Your task to perform on an android device: empty trash in the gmail app Image 0: 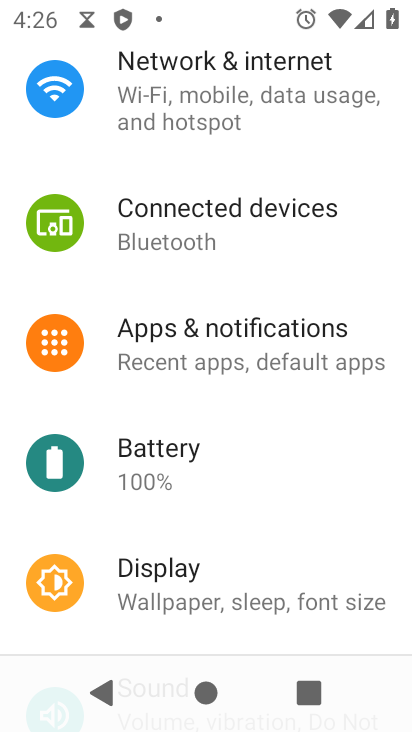
Step 0: press home button
Your task to perform on an android device: empty trash in the gmail app Image 1: 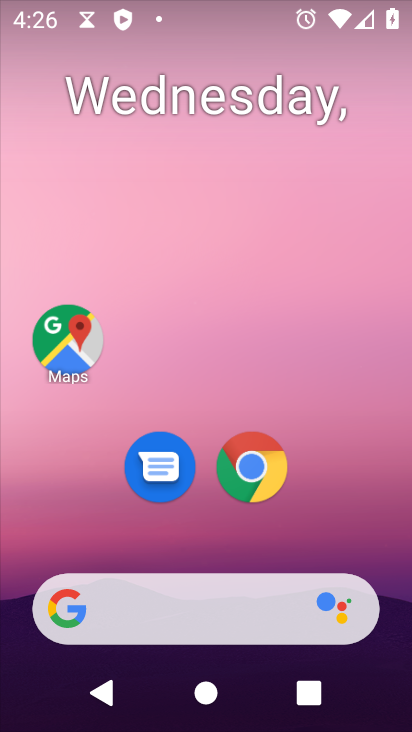
Step 1: drag from (379, 488) to (357, 71)
Your task to perform on an android device: empty trash in the gmail app Image 2: 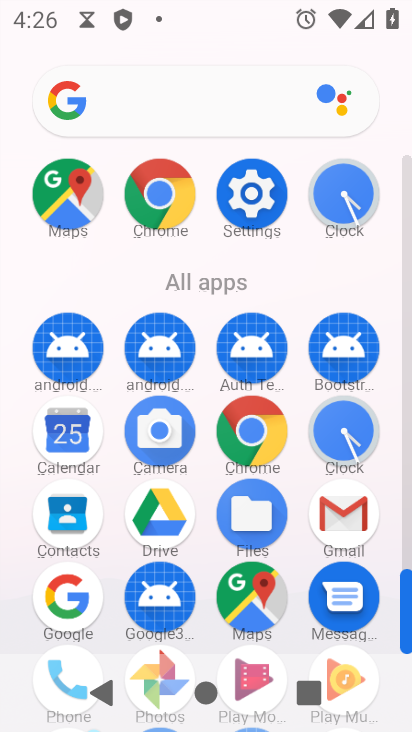
Step 2: click (359, 510)
Your task to perform on an android device: empty trash in the gmail app Image 3: 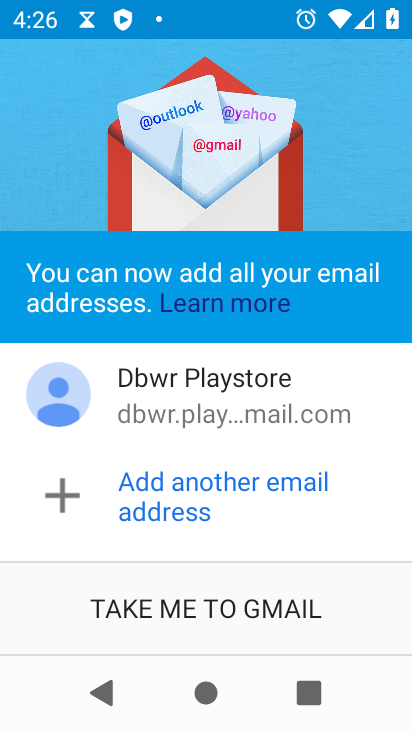
Step 3: click (232, 619)
Your task to perform on an android device: empty trash in the gmail app Image 4: 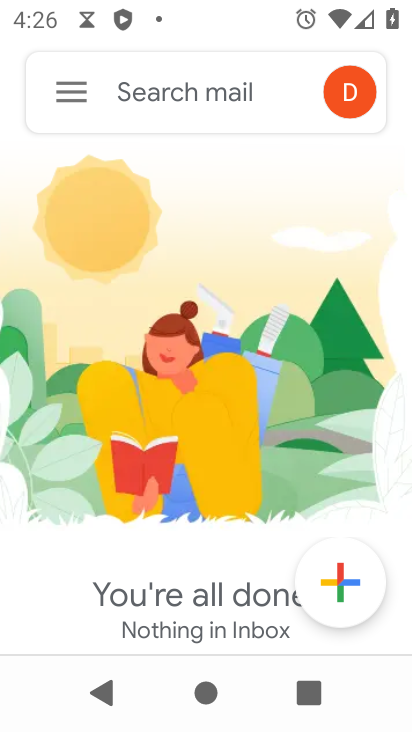
Step 4: click (69, 95)
Your task to perform on an android device: empty trash in the gmail app Image 5: 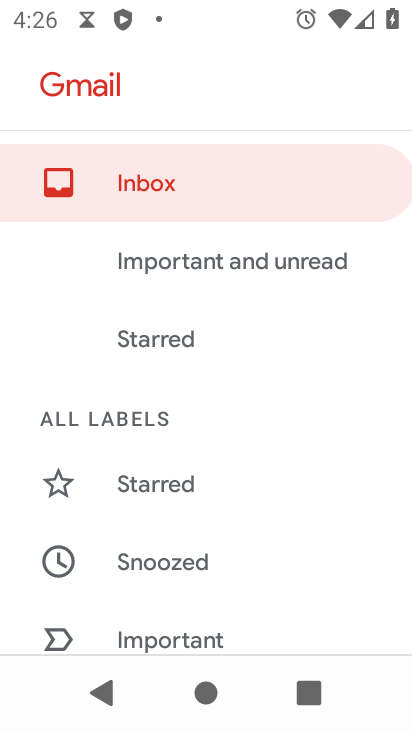
Step 5: drag from (180, 589) to (253, 202)
Your task to perform on an android device: empty trash in the gmail app Image 6: 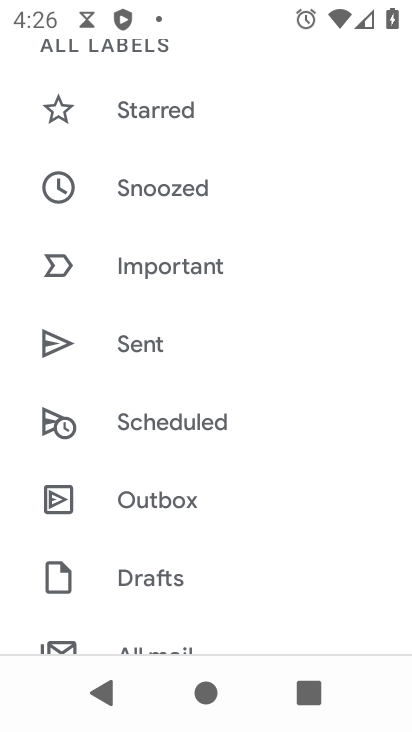
Step 6: drag from (214, 588) to (257, 212)
Your task to perform on an android device: empty trash in the gmail app Image 7: 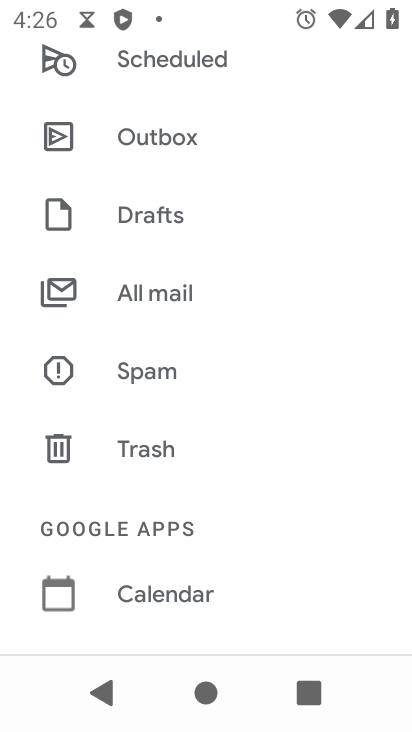
Step 7: click (166, 375)
Your task to perform on an android device: empty trash in the gmail app Image 8: 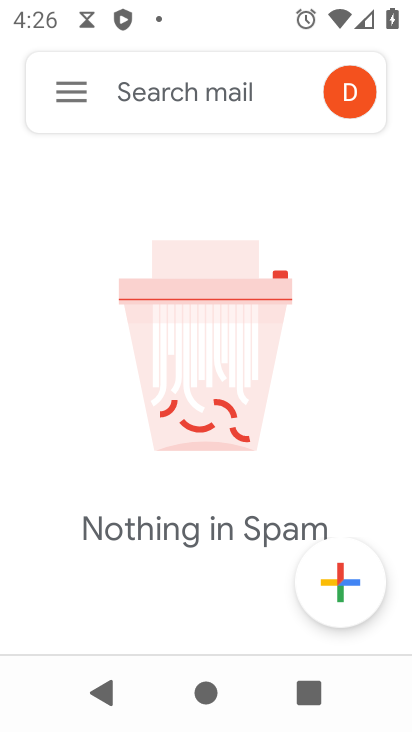
Step 8: task complete